Your task to perform on an android device: turn vacation reply on in the gmail app Image 0: 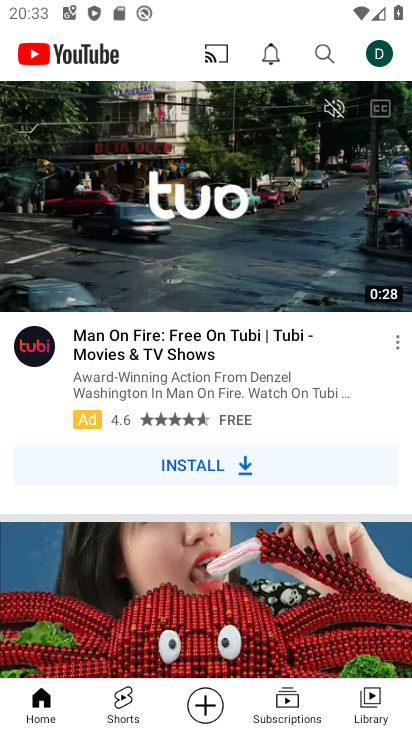
Step 0: press home button
Your task to perform on an android device: turn vacation reply on in the gmail app Image 1: 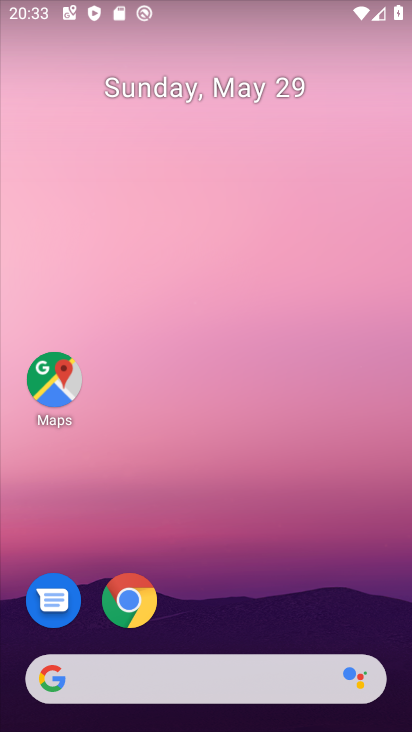
Step 1: drag from (329, 573) to (355, 269)
Your task to perform on an android device: turn vacation reply on in the gmail app Image 2: 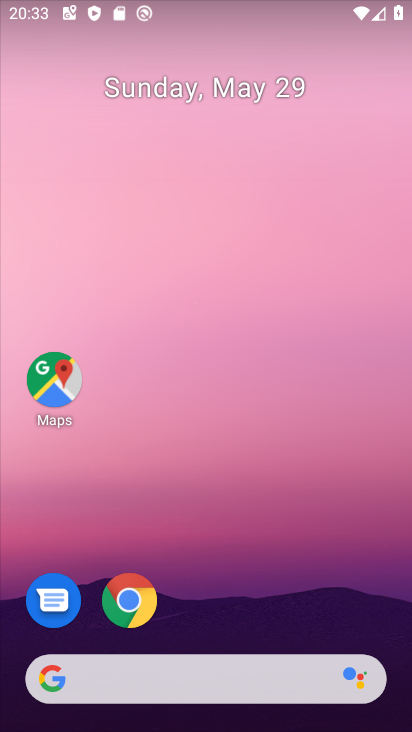
Step 2: drag from (222, 597) to (271, 255)
Your task to perform on an android device: turn vacation reply on in the gmail app Image 3: 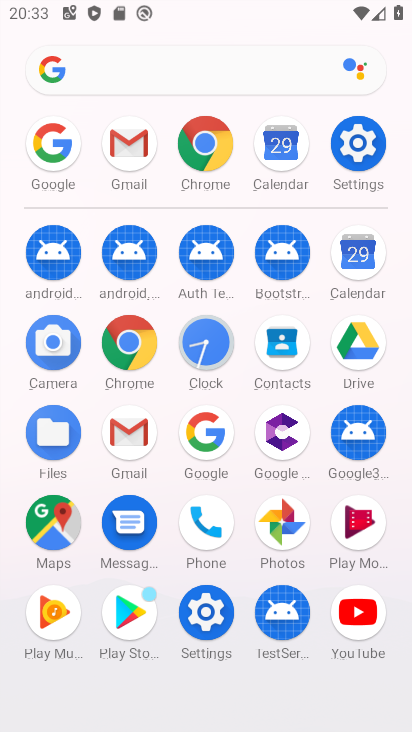
Step 3: click (127, 442)
Your task to perform on an android device: turn vacation reply on in the gmail app Image 4: 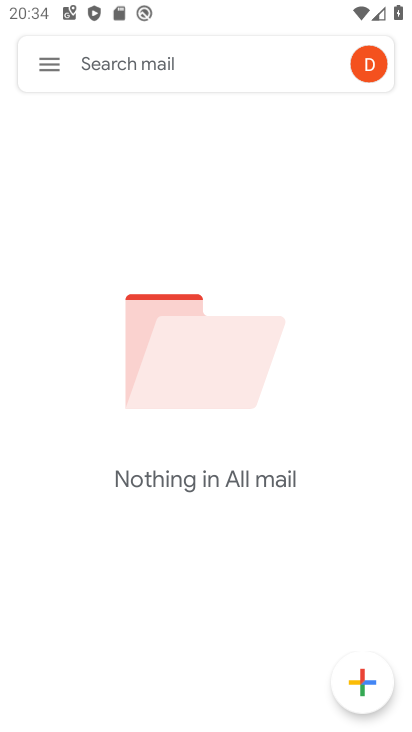
Step 4: click (52, 72)
Your task to perform on an android device: turn vacation reply on in the gmail app Image 5: 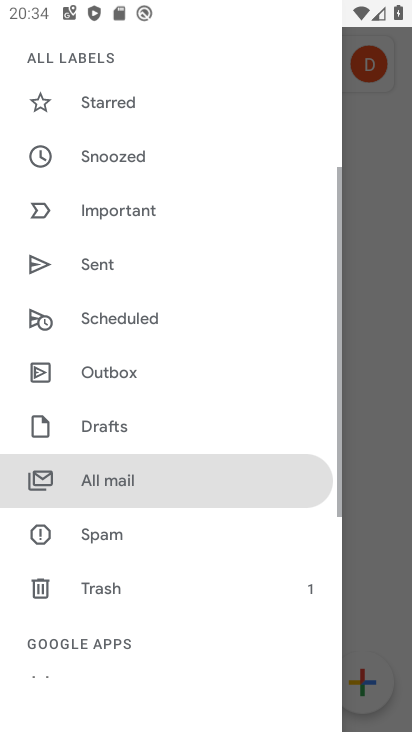
Step 5: drag from (105, 609) to (145, 259)
Your task to perform on an android device: turn vacation reply on in the gmail app Image 6: 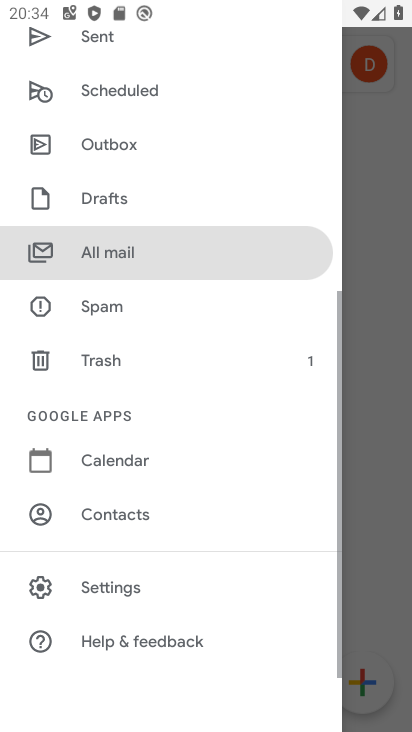
Step 6: click (142, 579)
Your task to perform on an android device: turn vacation reply on in the gmail app Image 7: 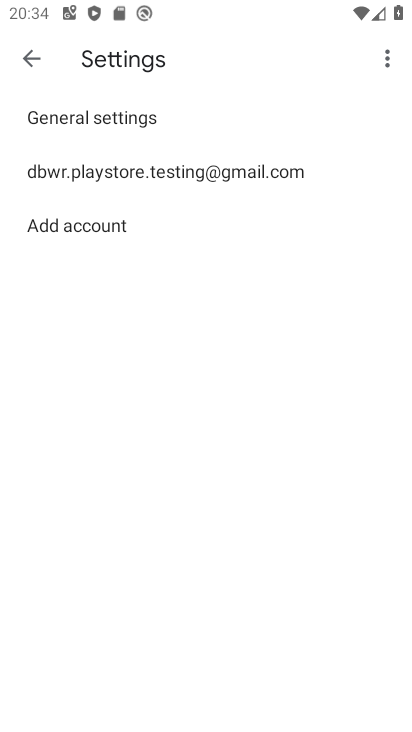
Step 7: click (267, 156)
Your task to perform on an android device: turn vacation reply on in the gmail app Image 8: 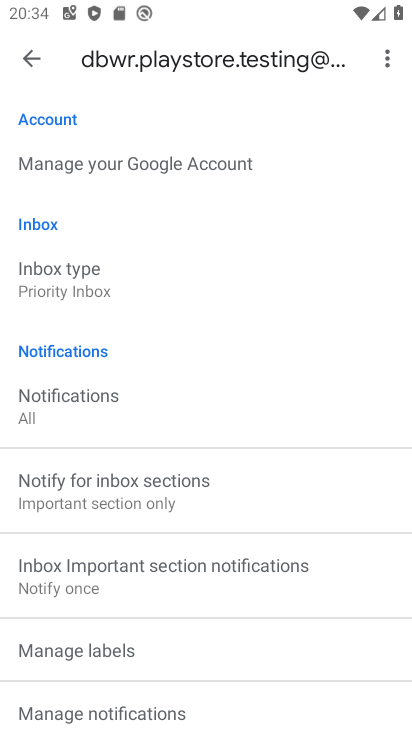
Step 8: drag from (183, 616) to (206, 362)
Your task to perform on an android device: turn vacation reply on in the gmail app Image 9: 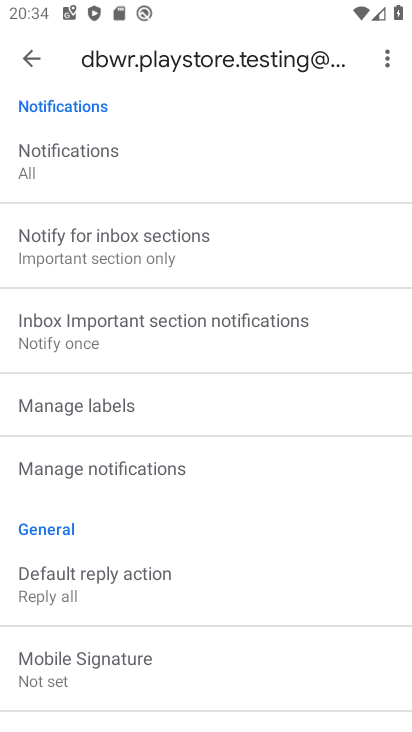
Step 9: drag from (194, 587) to (236, 291)
Your task to perform on an android device: turn vacation reply on in the gmail app Image 10: 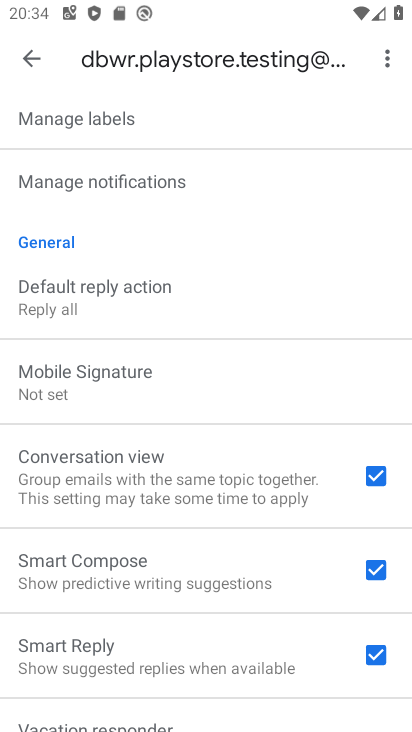
Step 10: drag from (194, 662) to (190, 398)
Your task to perform on an android device: turn vacation reply on in the gmail app Image 11: 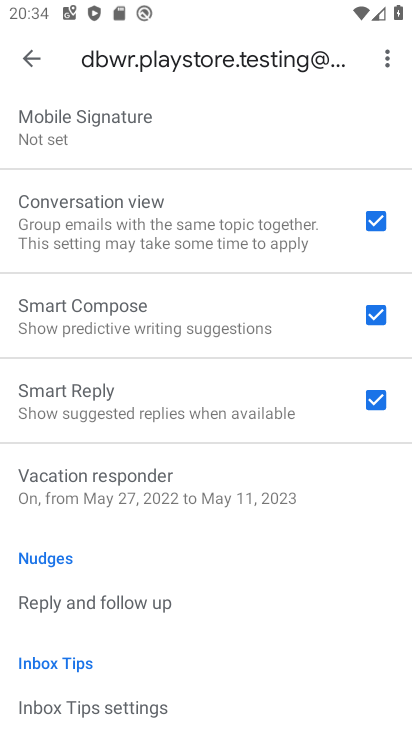
Step 11: click (213, 499)
Your task to perform on an android device: turn vacation reply on in the gmail app Image 12: 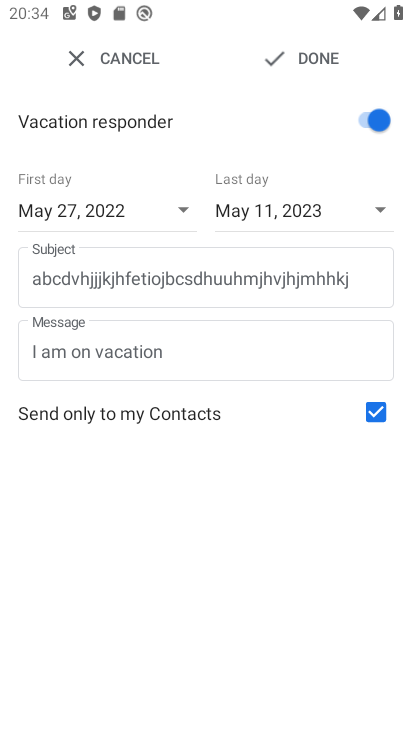
Step 12: task complete